Your task to perform on an android device: turn smart compose on in the gmail app Image 0: 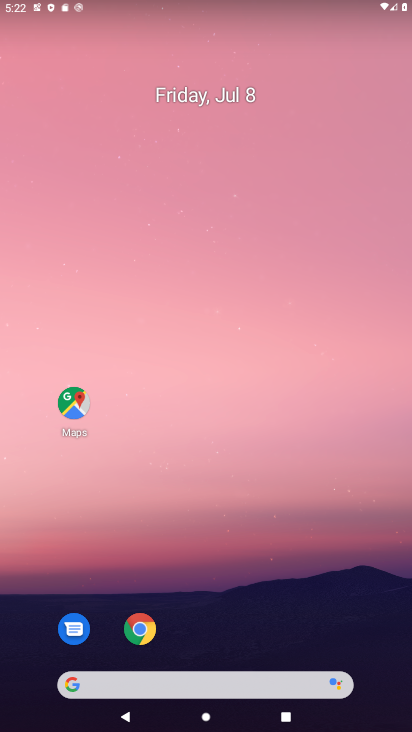
Step 0: press home button
Your task to perform on an android device: turn smart compose on in the gmail app Image 1: 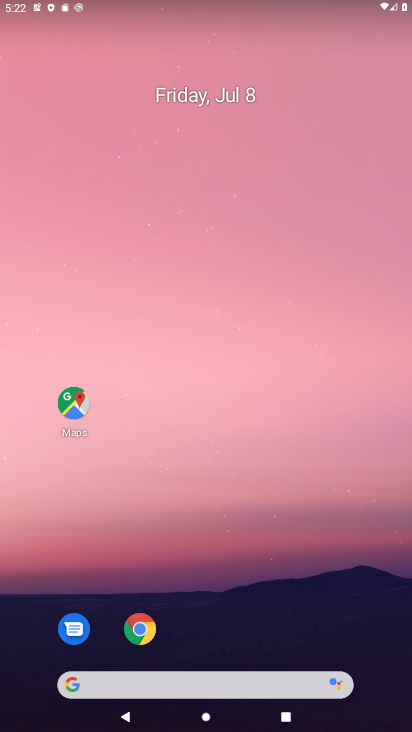
Step 1: click (213, 55)
Your task to perform on an android device: turn smart compose on in the gmail app Image 2: 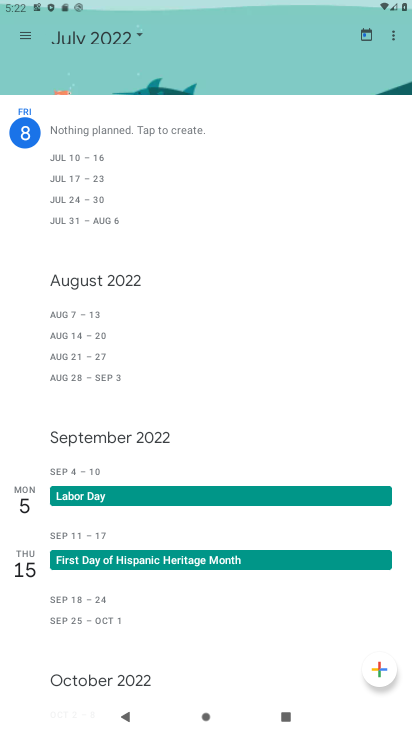
Step 2: press home button
Your task to perform on an android device: turn smart compose on in the gmail app Image 3: 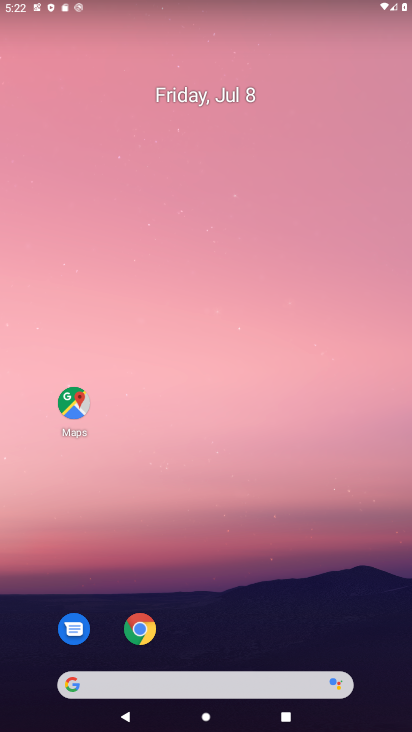
Step 3: drag from (231, 633) to (247, 274)
Your task to perform on an android device: turn smart compose on in the gmail app Image 4: 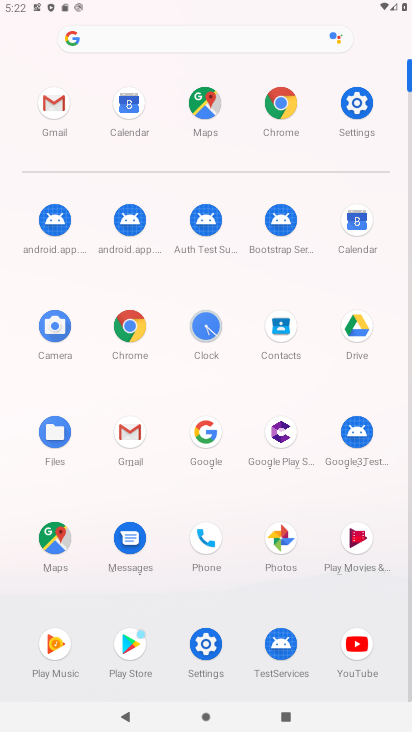
Step 4: click (54, 110)
Your task to perform on an android device: turn smart compose on in the gmail app Image 5: 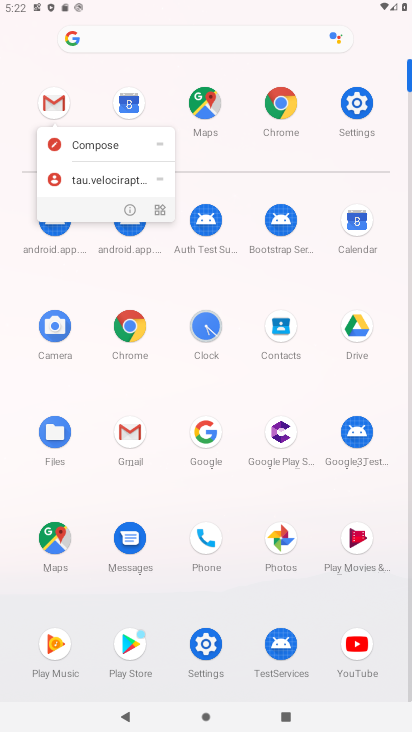
Step 5: click (66, 95)
Your task to perform on an android device: turn smart compose on in the gmail app Image 6: 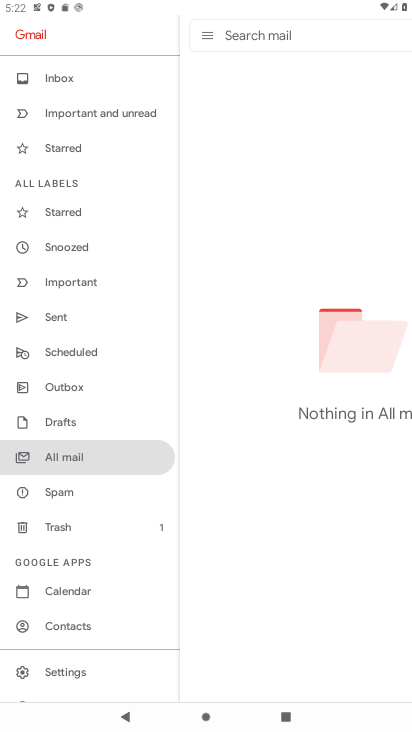
Step 6: click (67, 680)
Your task to perform on an android device: turn smart compose on in the gmail app Image 7: 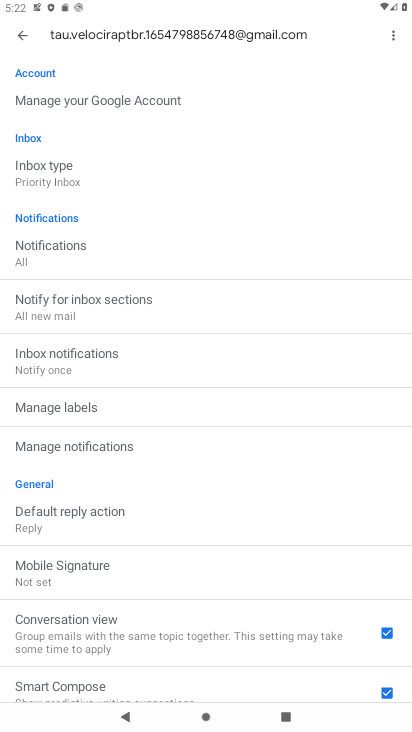
Step 7: task complete